Your task to perform on an android device: Set the phone to "Do not disturb". Image 0: 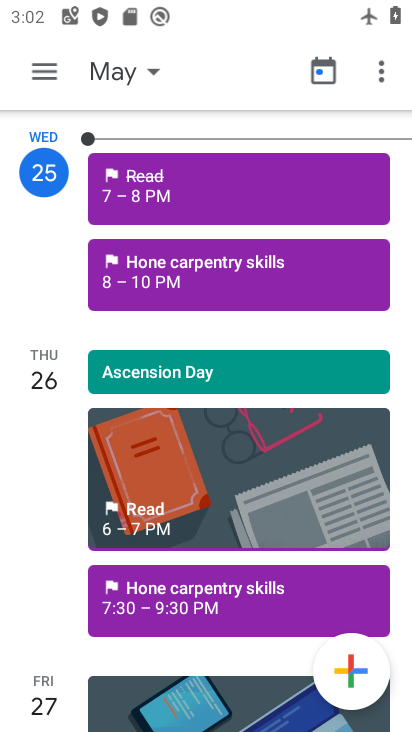
Step 0: press home button
Your task to perform on an android device: Set the phone to "Do not disturb". Image 1: 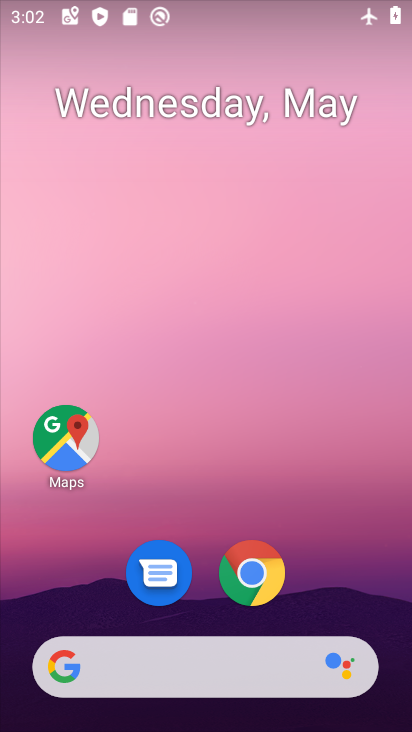
Step 1: drag from (315, 586) to (337, 77)
Your task to perform on an android device: Set the phone to "Do not disturb". Image 2: 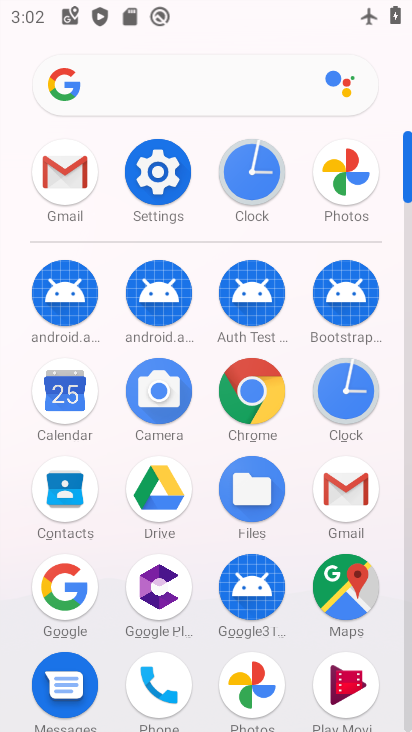
Step 2: click (152, 169)
Your task to perform on an android device: Set the phone to "Do not disturb". Image 3: 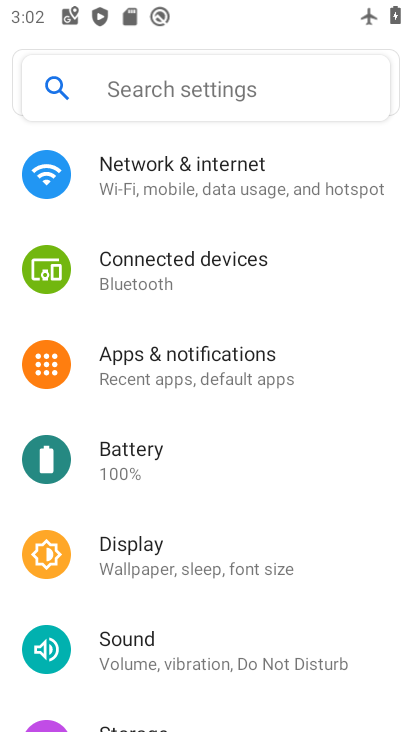
Step 3: click (237, 665)
Your task to perform on an android device: Set the phone to "Do not disturb". Image 4: 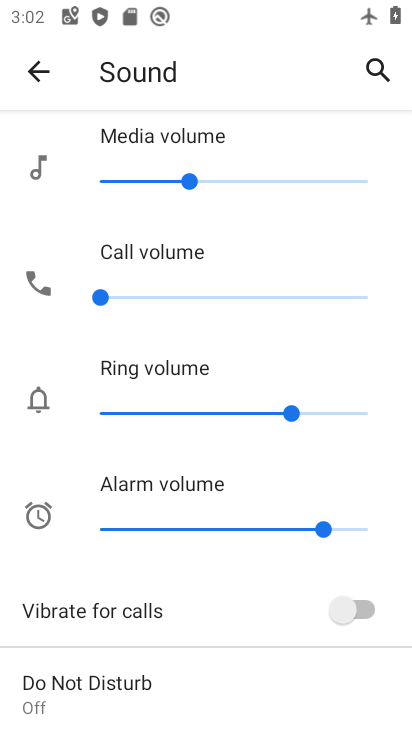
Step 4: click (146, 693)
Your task to perform on an android device: Set the phone to "Do not disturb". Image 5: 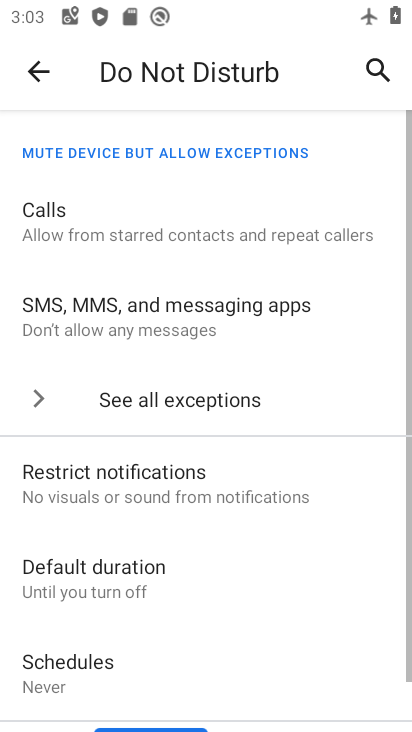
Step 5: drag from (212, 652) to (321, 297)
Your task to perform on an android device: Set the phone to "Do not disturb". Image 6: 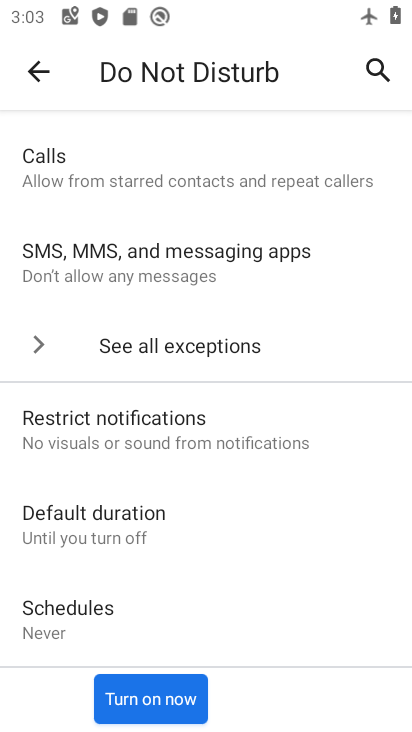
Step 6: click (152, 695)
Your task to perform on an android device: Set the phone to "Do not disturb". Image 7: 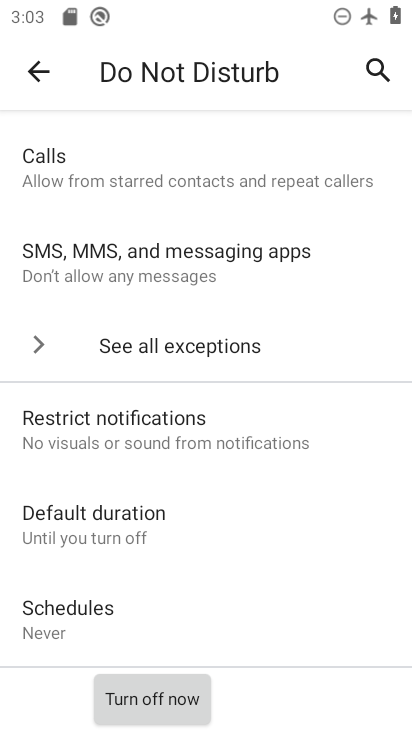
Step 7: task complete